Your task to perform on an android device: Add "apple airpods" to the cart on bestbuy.com, then select checkout. Image 0: 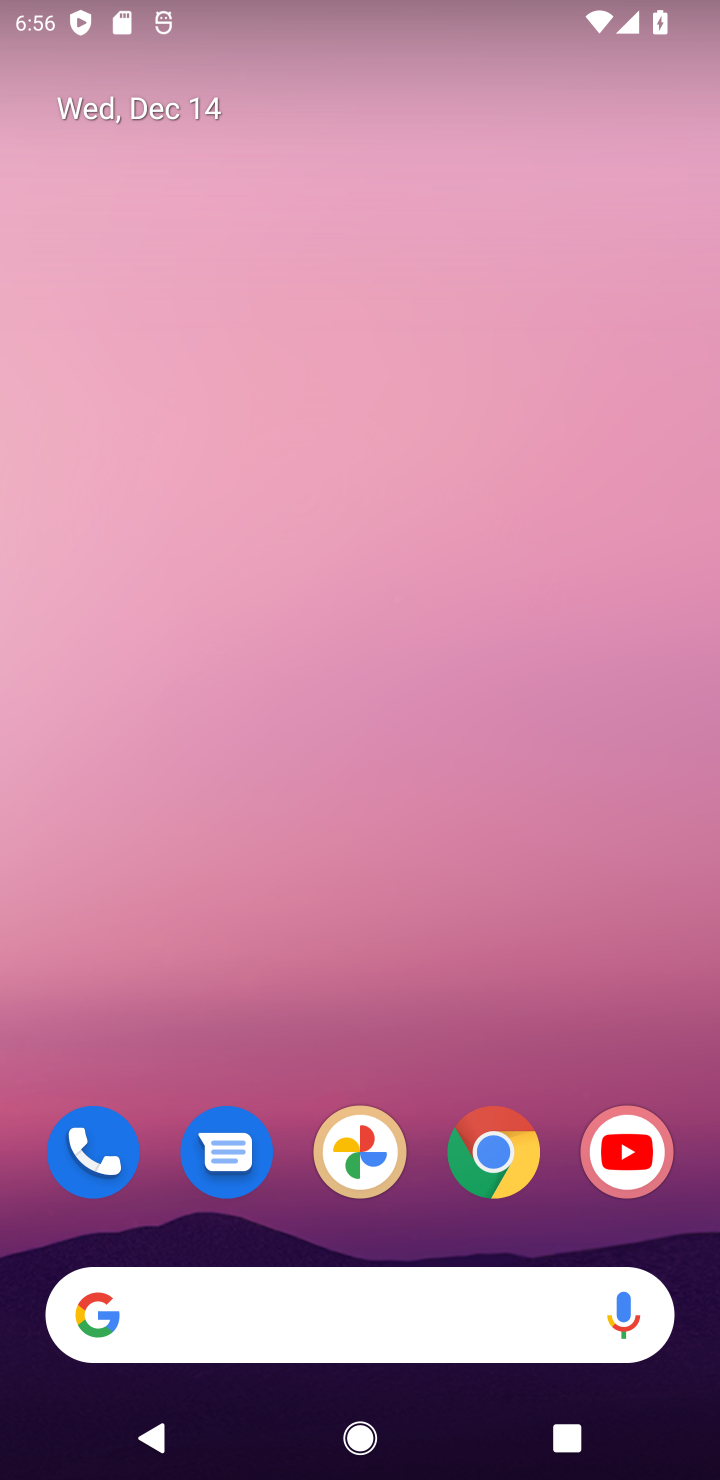
Step 0: click (503, 1157)
Your task to perform on an android device: Add "apple airpods" to the cart on bestbuy.com, then select checkout. Image 1: 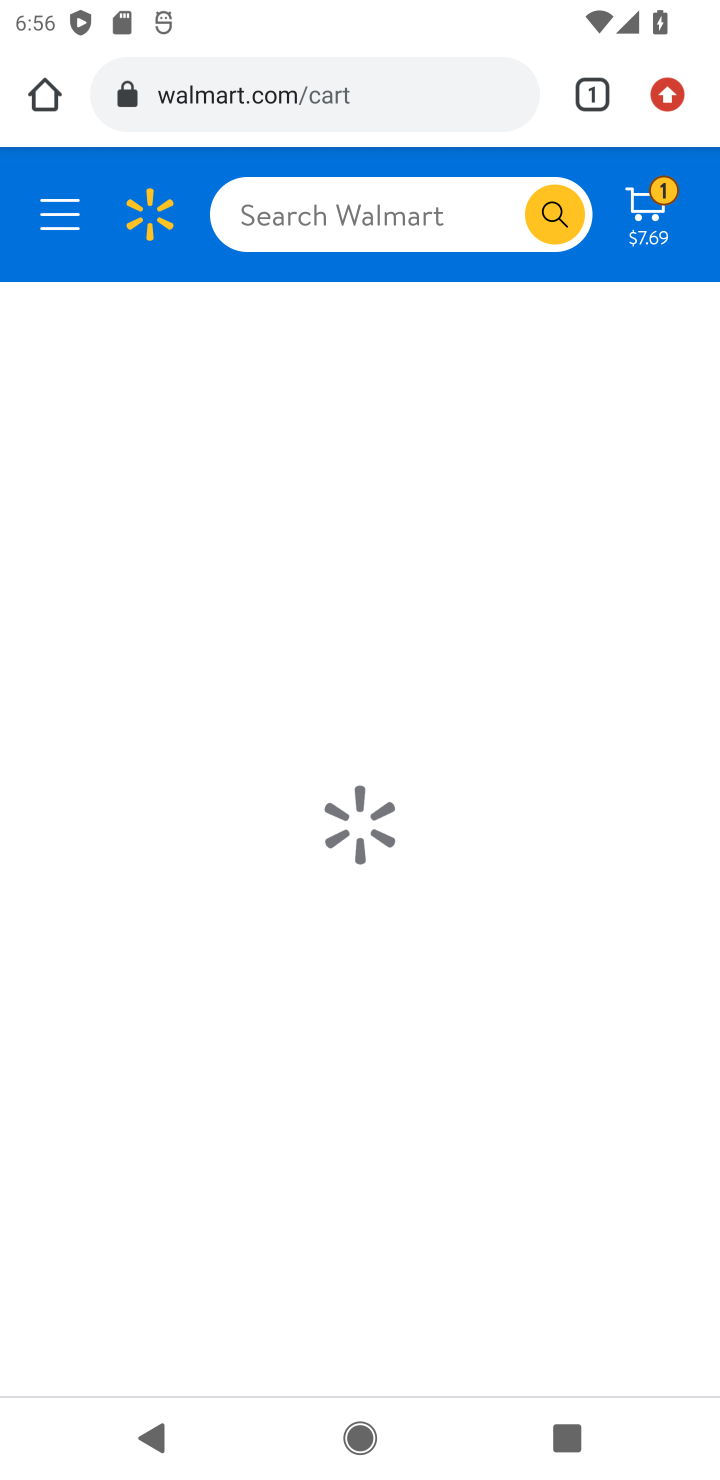
Step 1: click (273, 101)
Your task to perform on an android device: Add "apple airpods" to the cart on bestbuy.com, then select checkout. Image 2: 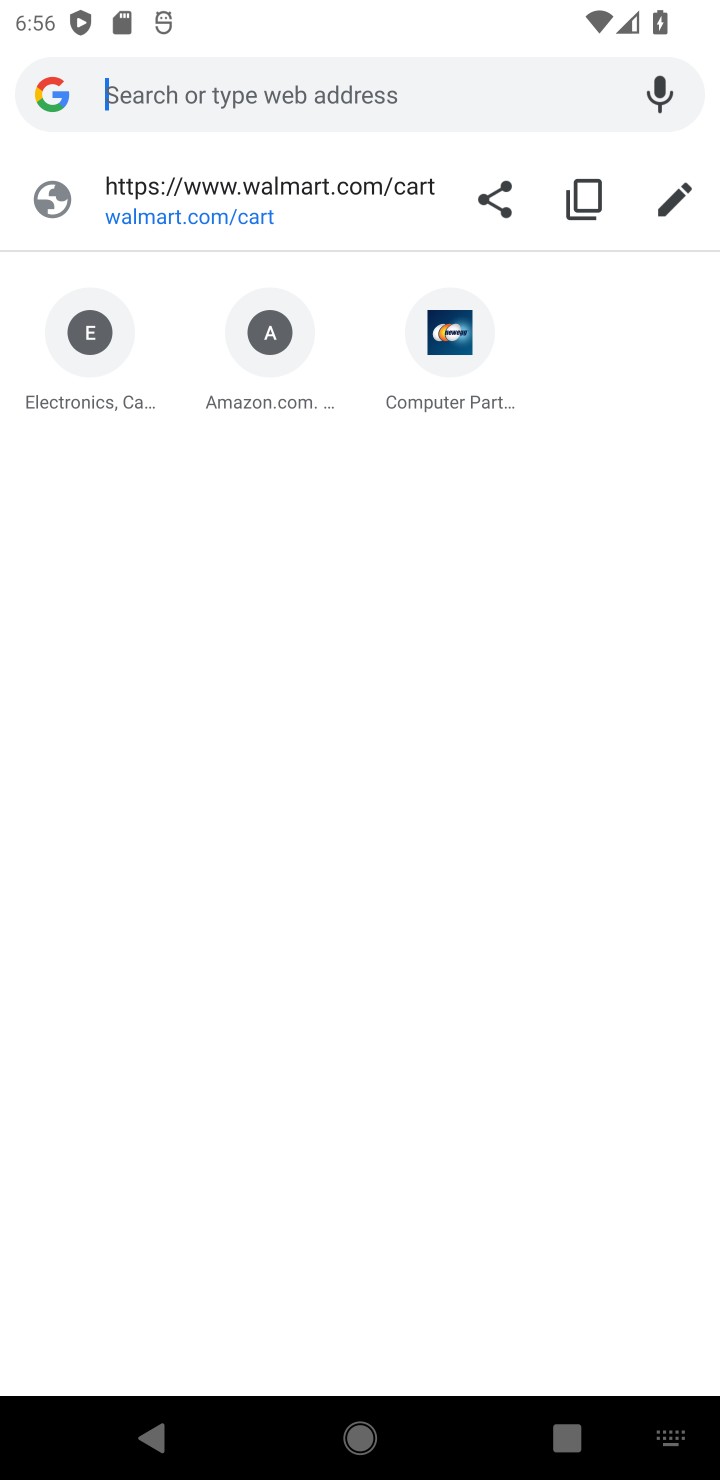
Step 2: type "bestbuy.com"
Your task to perform on an android device: Add "apple airpods" to the cart on bestbuy.com, then select checkout. Image 3: 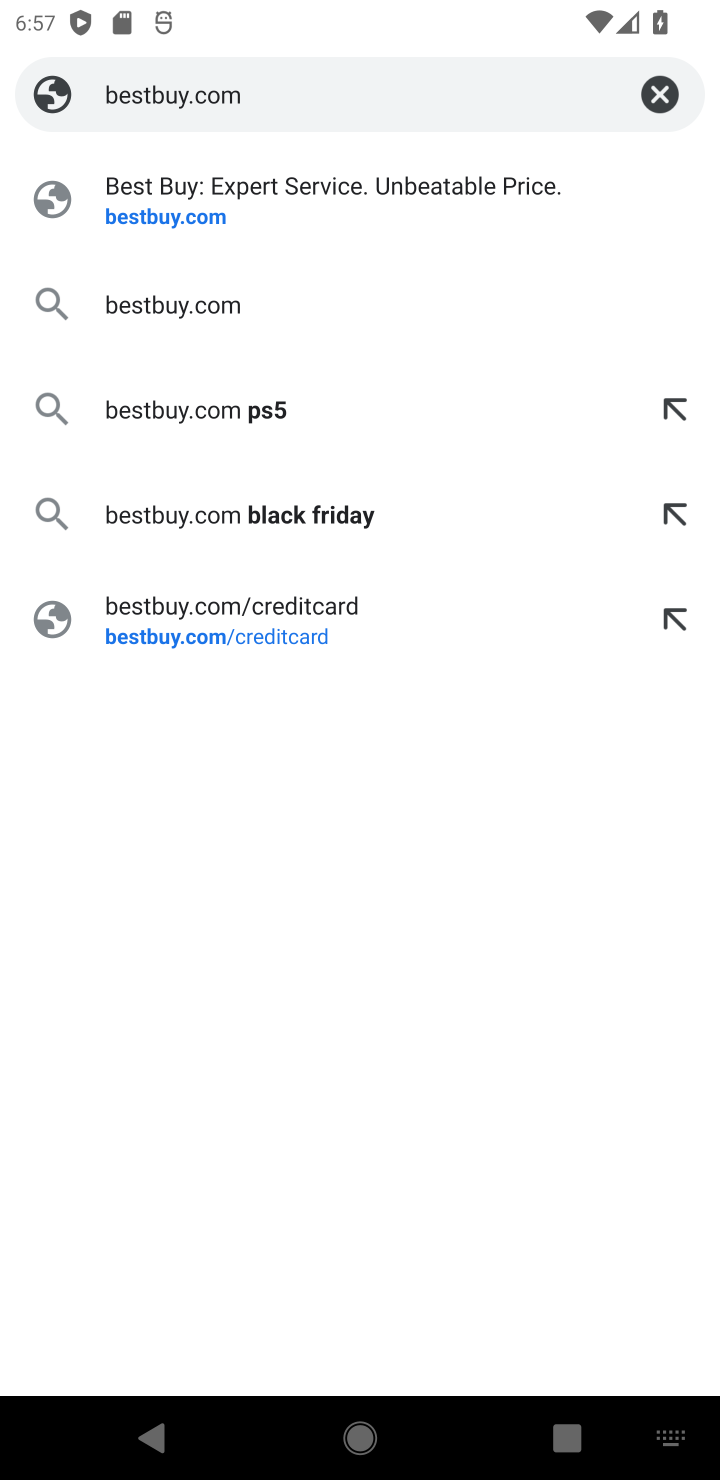
Step 3: click (199, 222)
Your task to perform on an android device: Add "apple airpods" to the cart on bestbuy.com, then select checkout. Image 4: 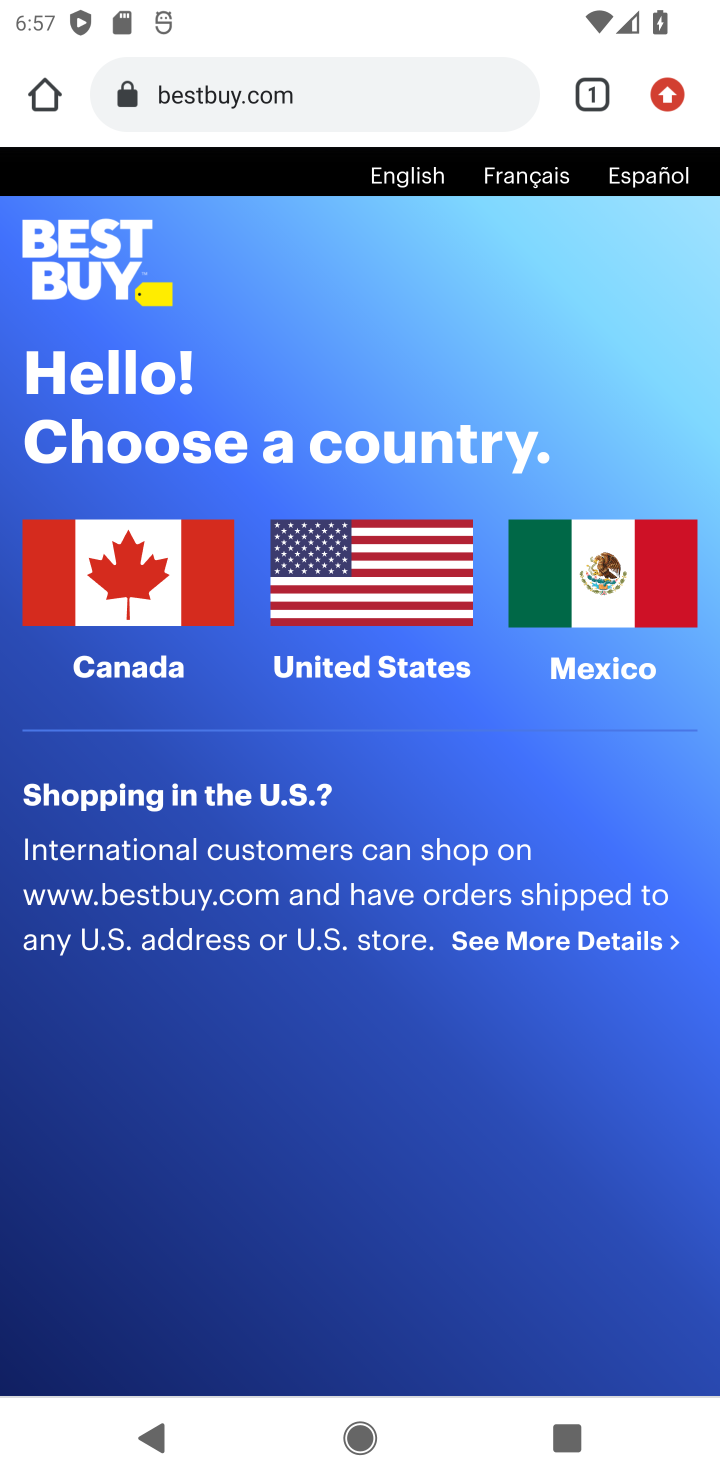
Step 4: click (375, 597)
Your task to perform on an android device: Add "apple airpods" to the cart on bestbuy.com, then select checkout. Image 5: 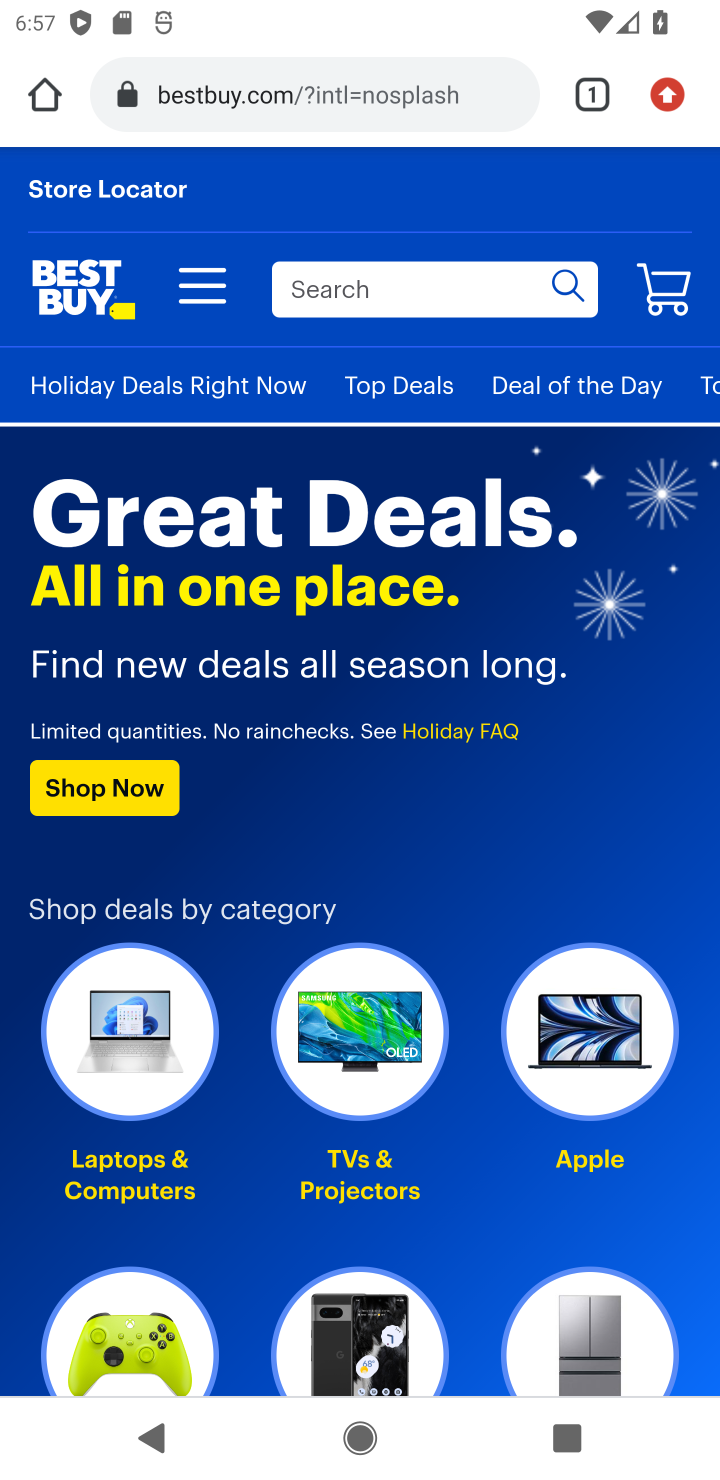
Step 5: click (346, 300)
Your task to perform on an android device: Add "apple airpods" to the cart on bestbuy.com, then select checkout. Image 6: 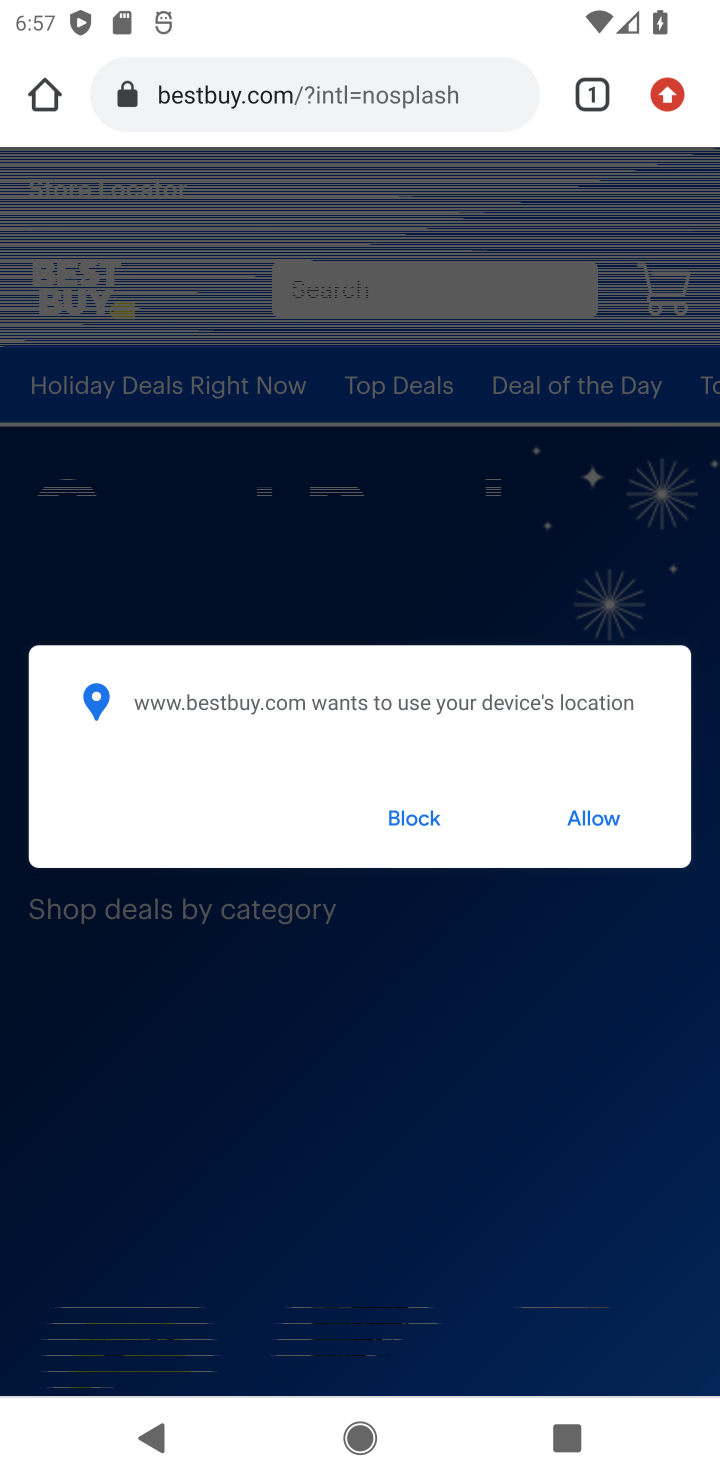
Step 6: click (411, 827)
Your task to perform on an android device: Add "apple airpods" to the cart on bestbuy.com, then select checkout. Image 7: 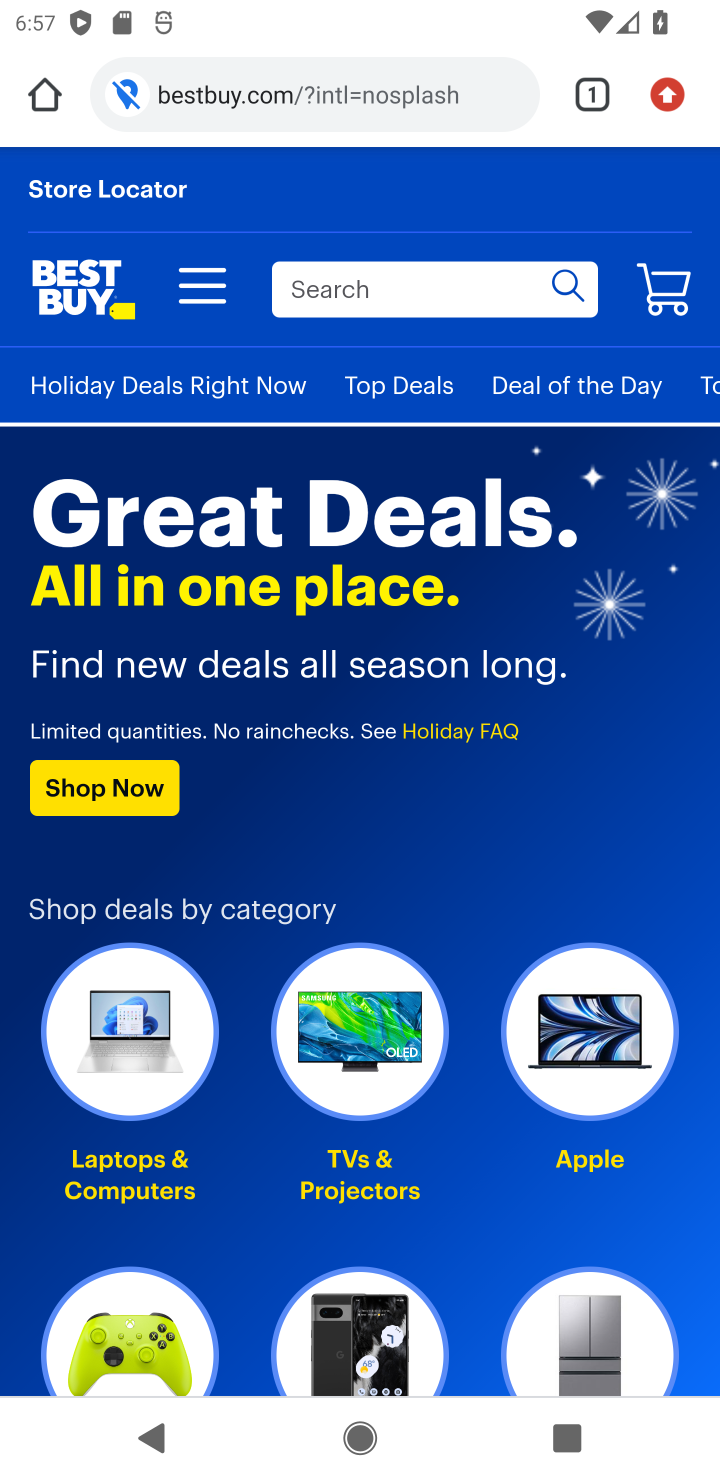
Step 7: click (316, 290)
Your task to perform on an android device: Add "apple airpods" to the cart on bestbuy.com, then select checkout. Image 8: 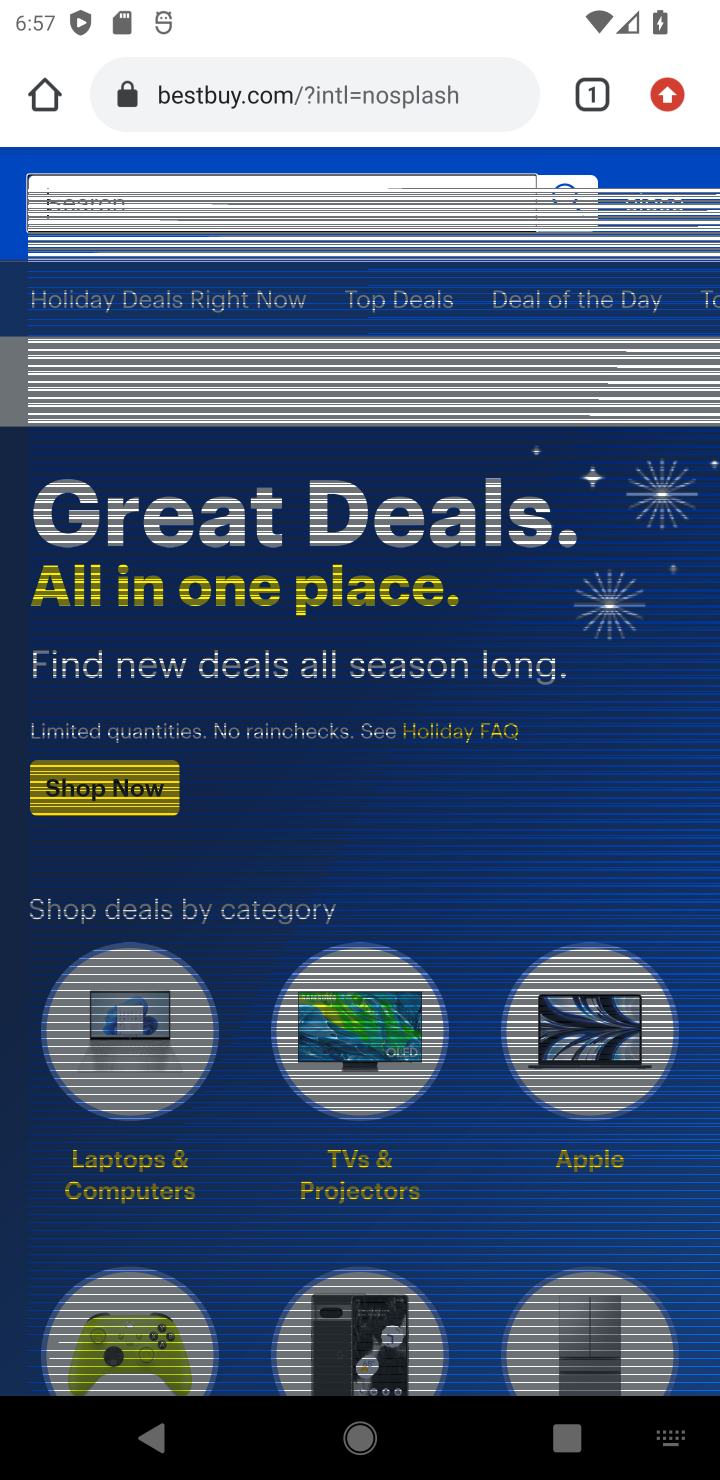
Step 8: type "apple airpods"
Your task to perform on an android device: Add "apple airpods" to the cart on bestbuy.com, then select checkout. Image 9: 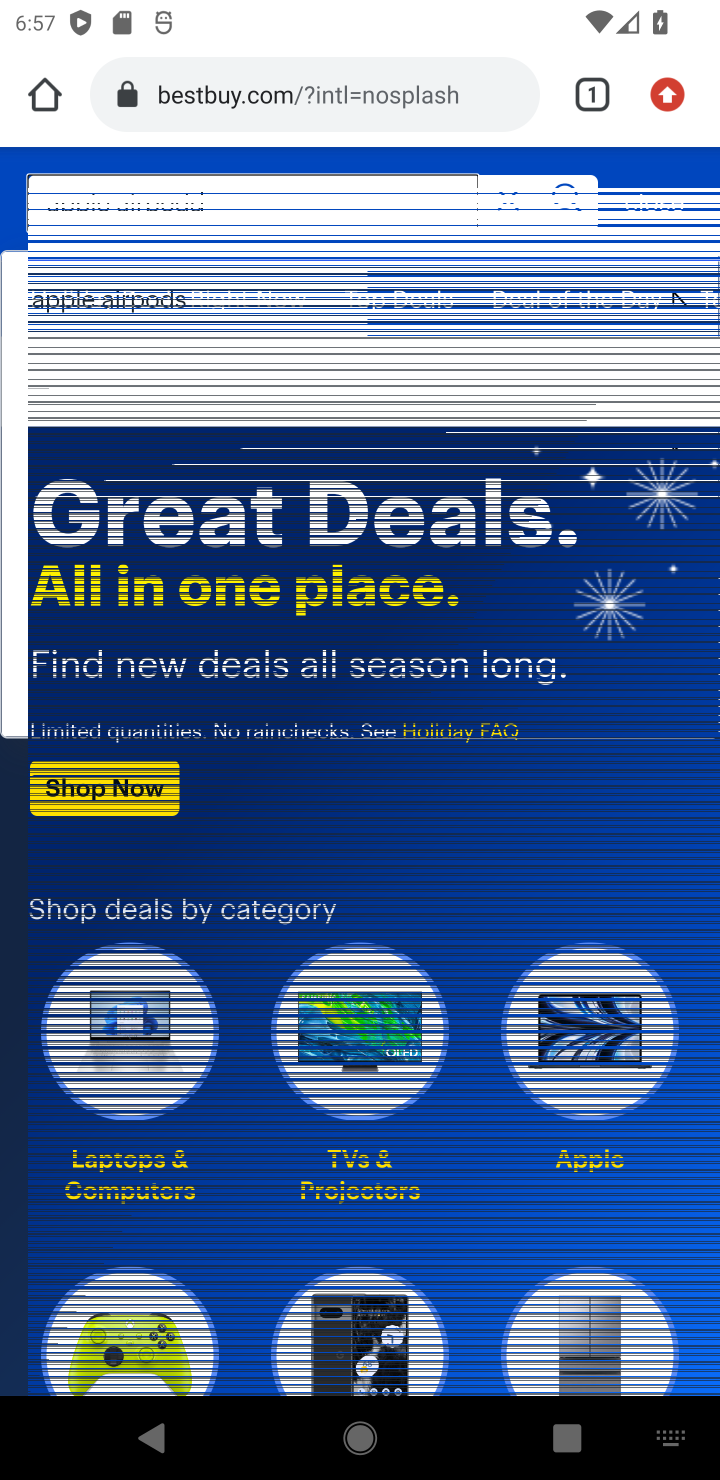
Step 9: click (103, 295)
Your task to perform on an android device: Add "apple airpods" to the cart on bestbuy.com, then select checkout. Image 10: 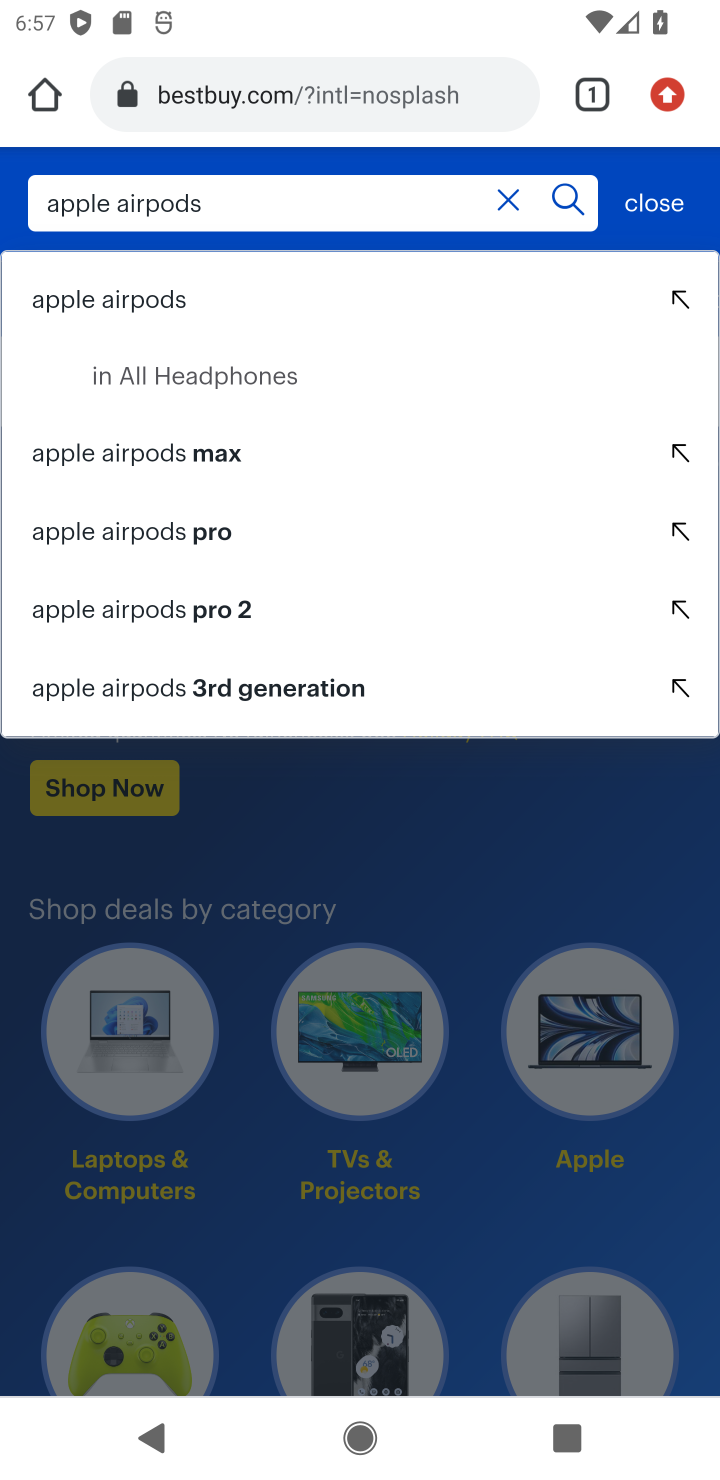
Step 10: click (109, 302)
Your task to perform on an android device: Add "apple airpods" to the cart on bestbuy.com, then select checkout. Image 11: 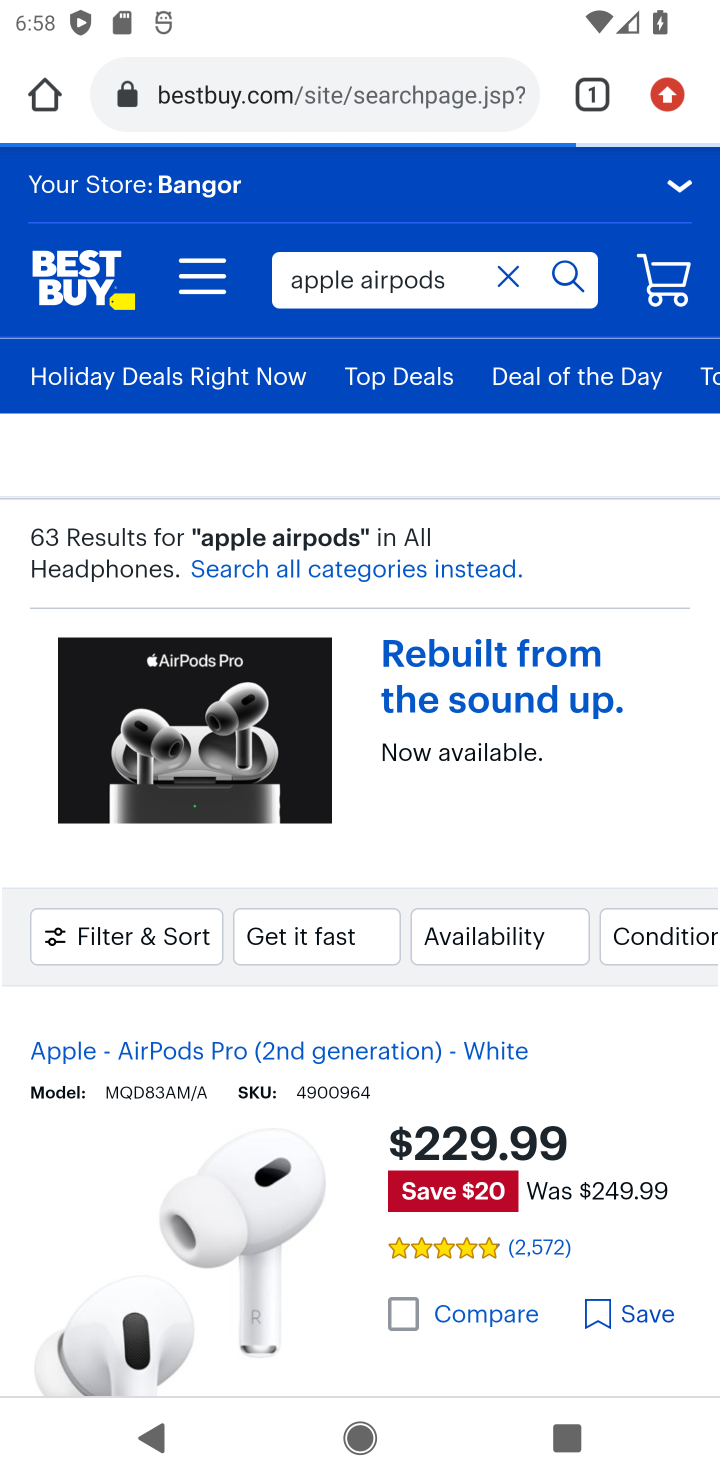
Step 11: drag from (263, 1103) to (263, 618)
Your task to perform on an android device: Add "apple airpods" to the cart on bestbuy.com, then select checkout. Image 12: 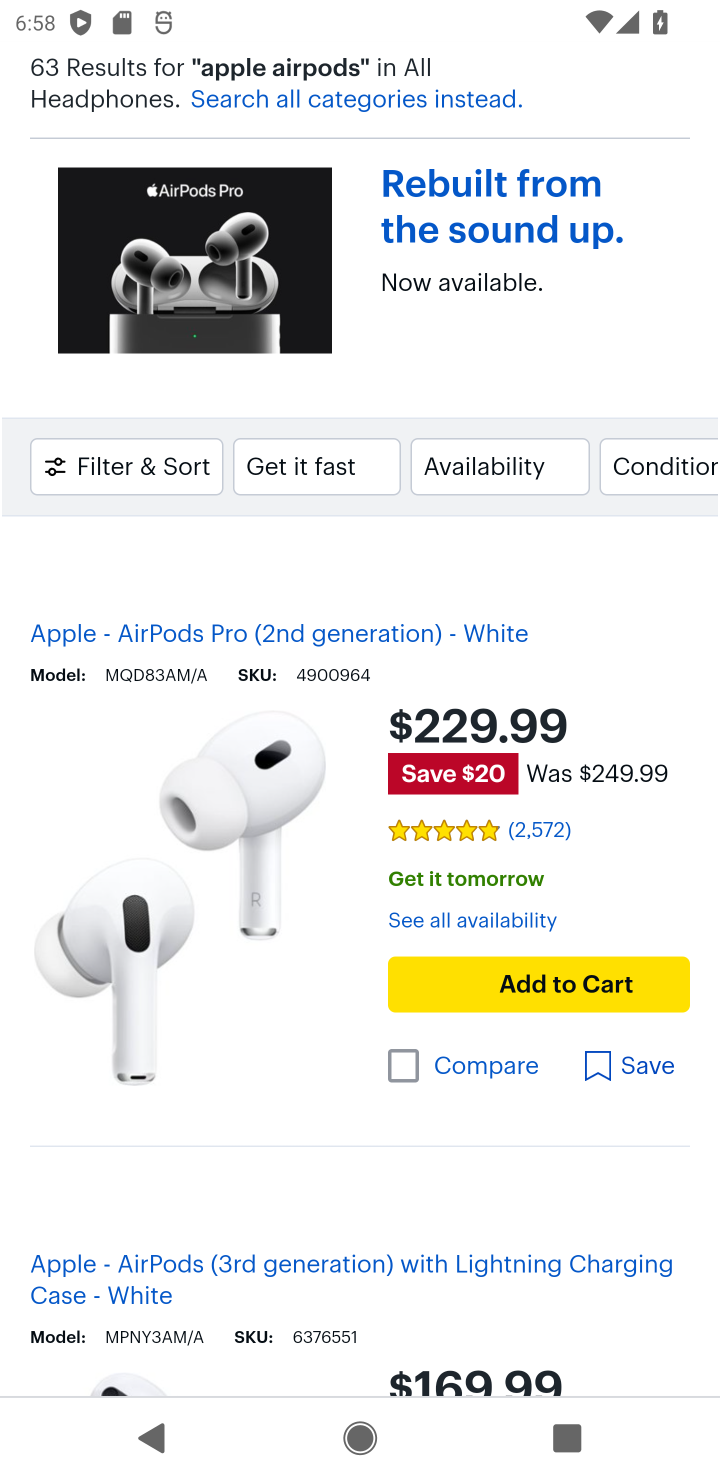
Step 12: click (237, 725)
Your task to perform on an android device: Add "apple airpods" to the cart on bestbuy.com, then select checkout. Image 13: 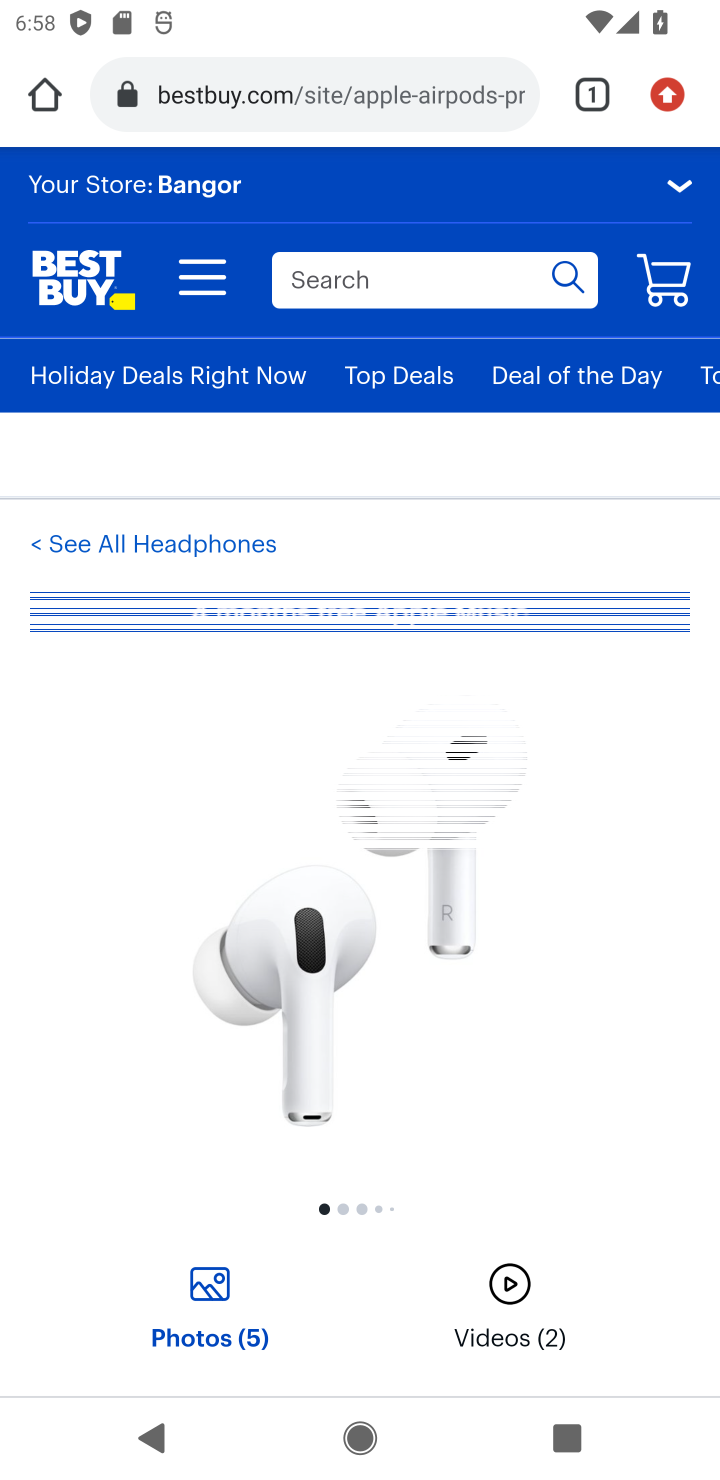
Step 13: drag from (373, 934) to (336, 285)
Your task to perform on an android device: Add "apple airpods" to the cart on bestbuy.com, then select checkout. Image 14: 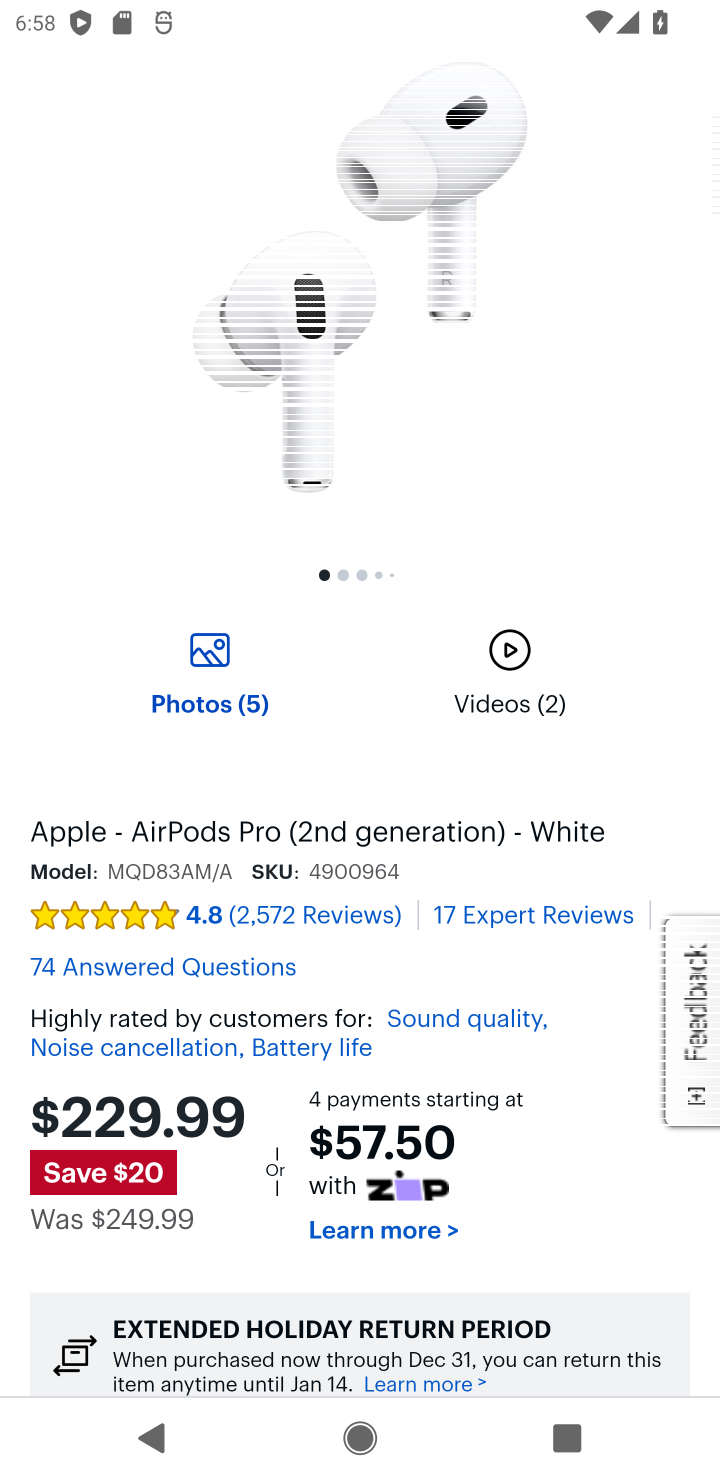
Step 14: drag from (297, 808) to (289, 399)
Your task to perform on an android device: Add "apple airpods" to the cart on bestbuy.com, then select checkout. Image 15: 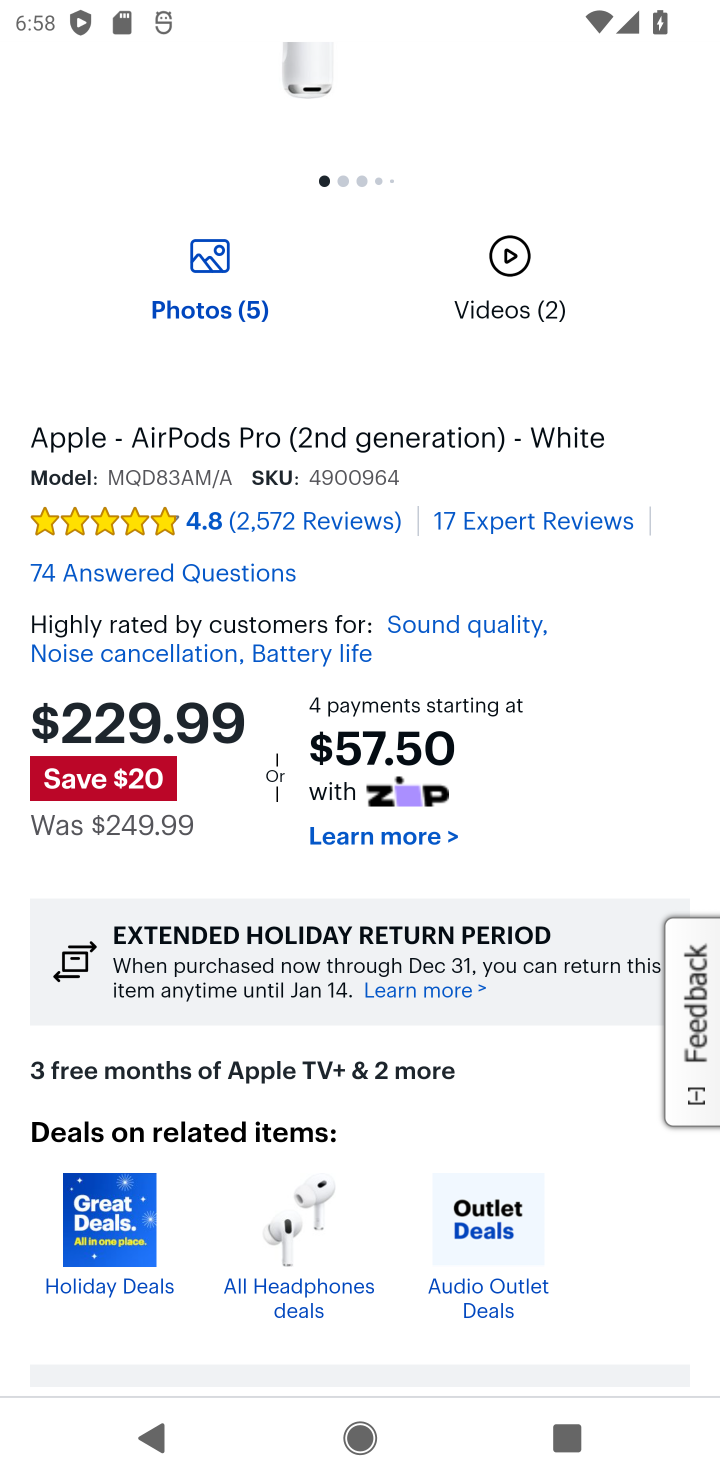
Step 15: drag from (396, 917) to (363, 327)
Your task to perform on an android device: Add "apple airpods" to the cart on bestbuy.com, then select checkout. Image 16: 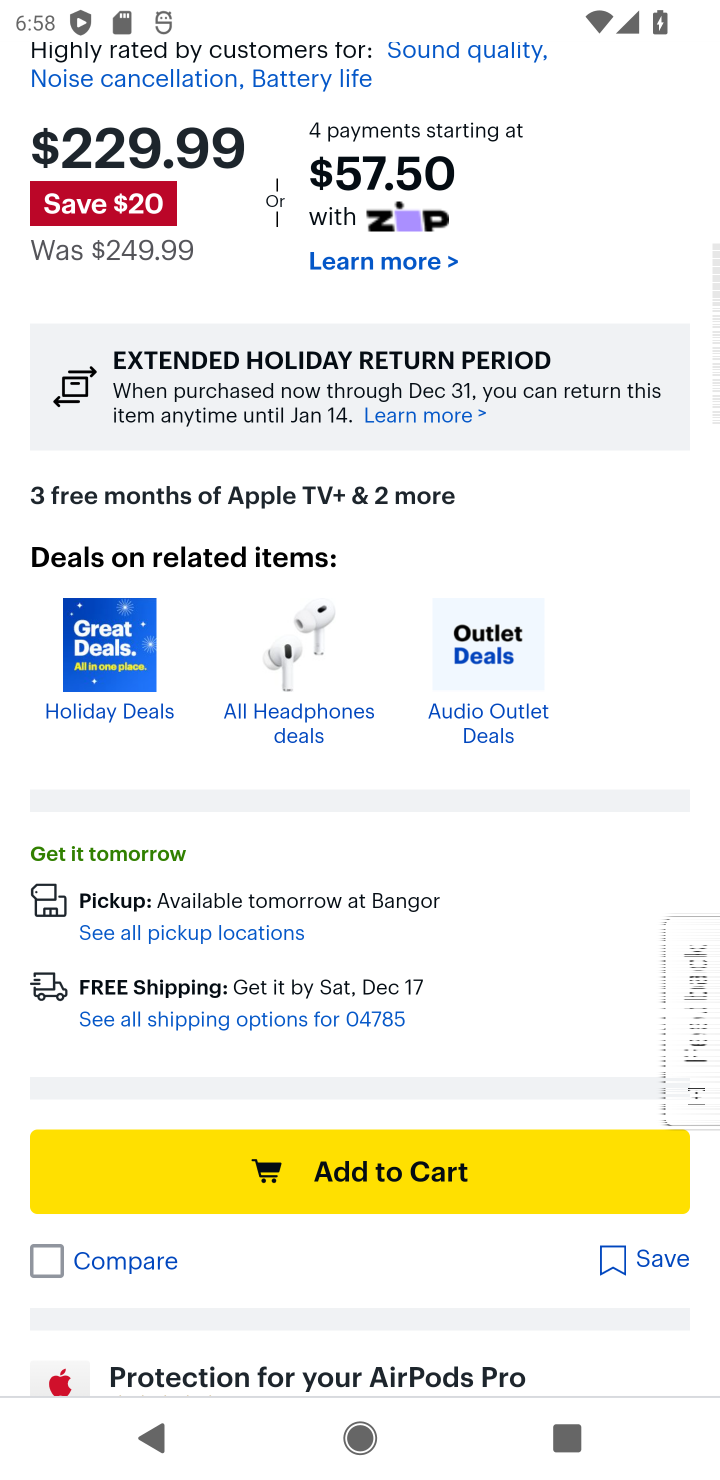
Step 16: click (357, 1175)
Your task to perform on an android device: Add "apple airpods" to the cart on bestbuy.com, then select checkout. Image 17: 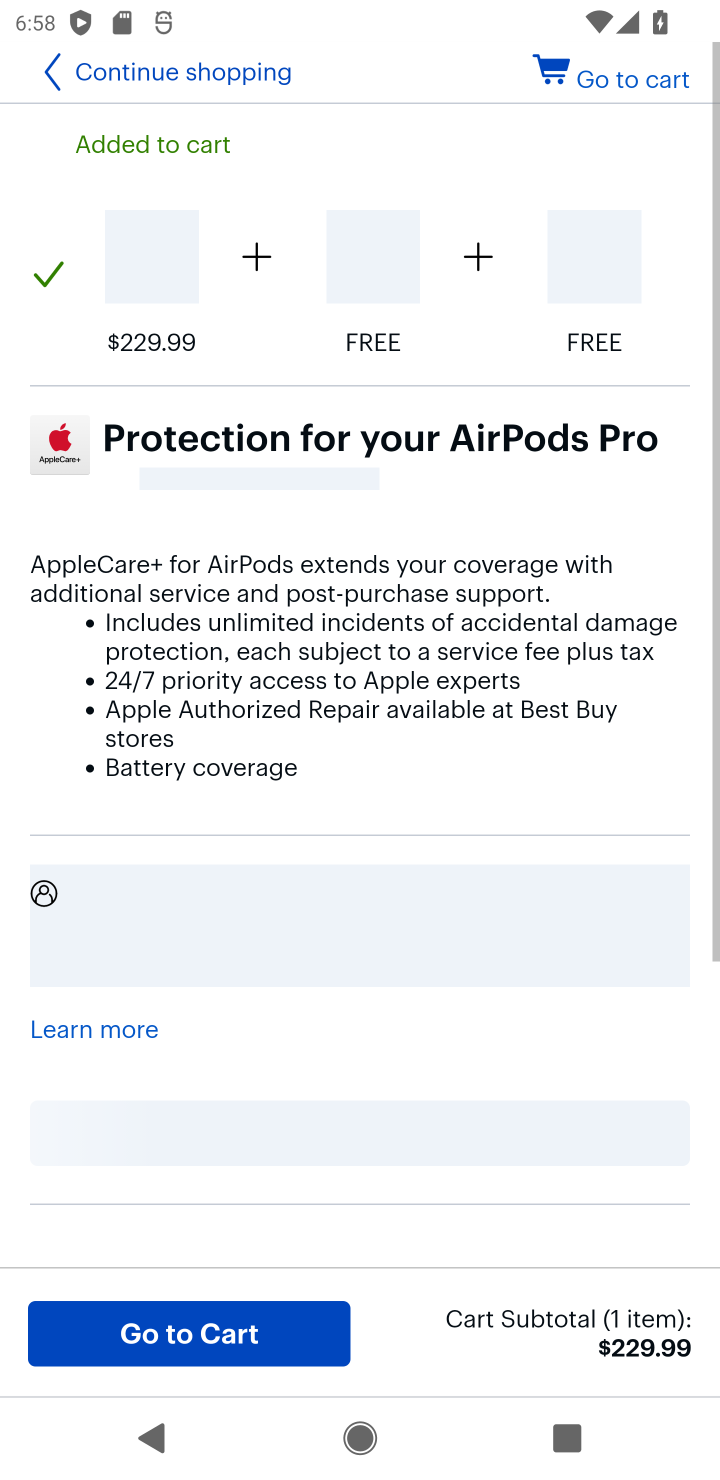
Step 17: click (631, 85)
Your task to perform on an android device: Add "apple airpods" to the cart on bestbuy.com, then select checkout. Image 18: 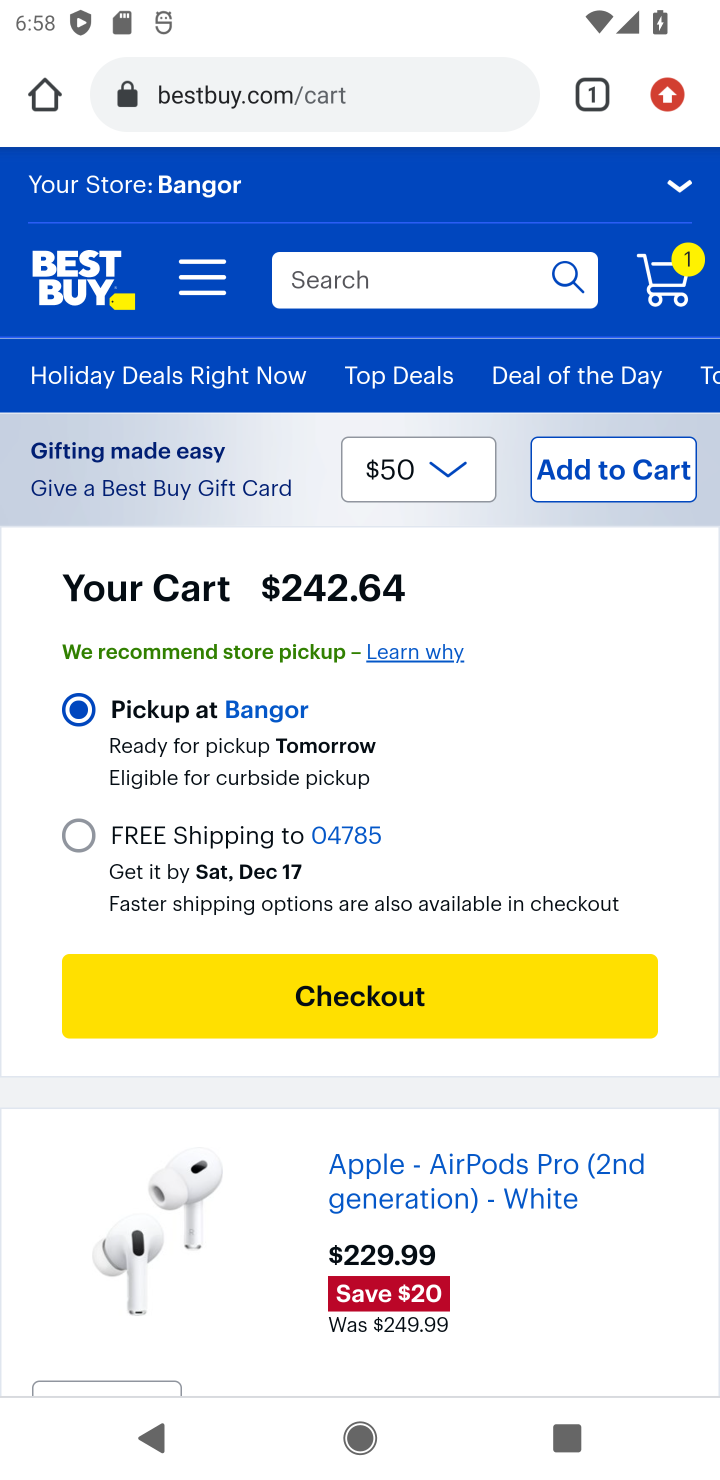
Step 18: click (302, 1016)
Your task to perform on an android device: Add "apple airpods" to the cart on bestbuy.com, then select checkout. Image 19: 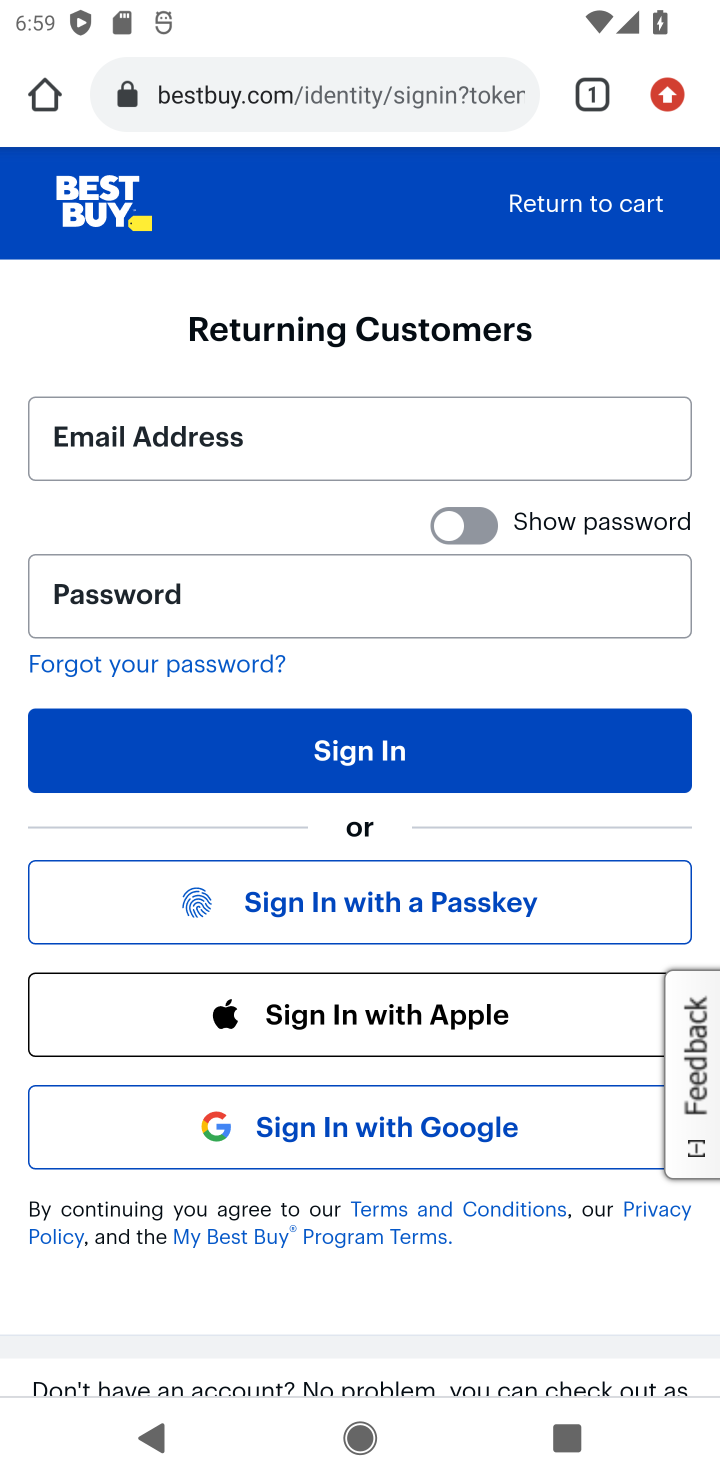
Step 19: press back button
Your task to perform on an android device: Add "apple airpods" to the cart on bestbuy.com, then select checkout. Image 20: 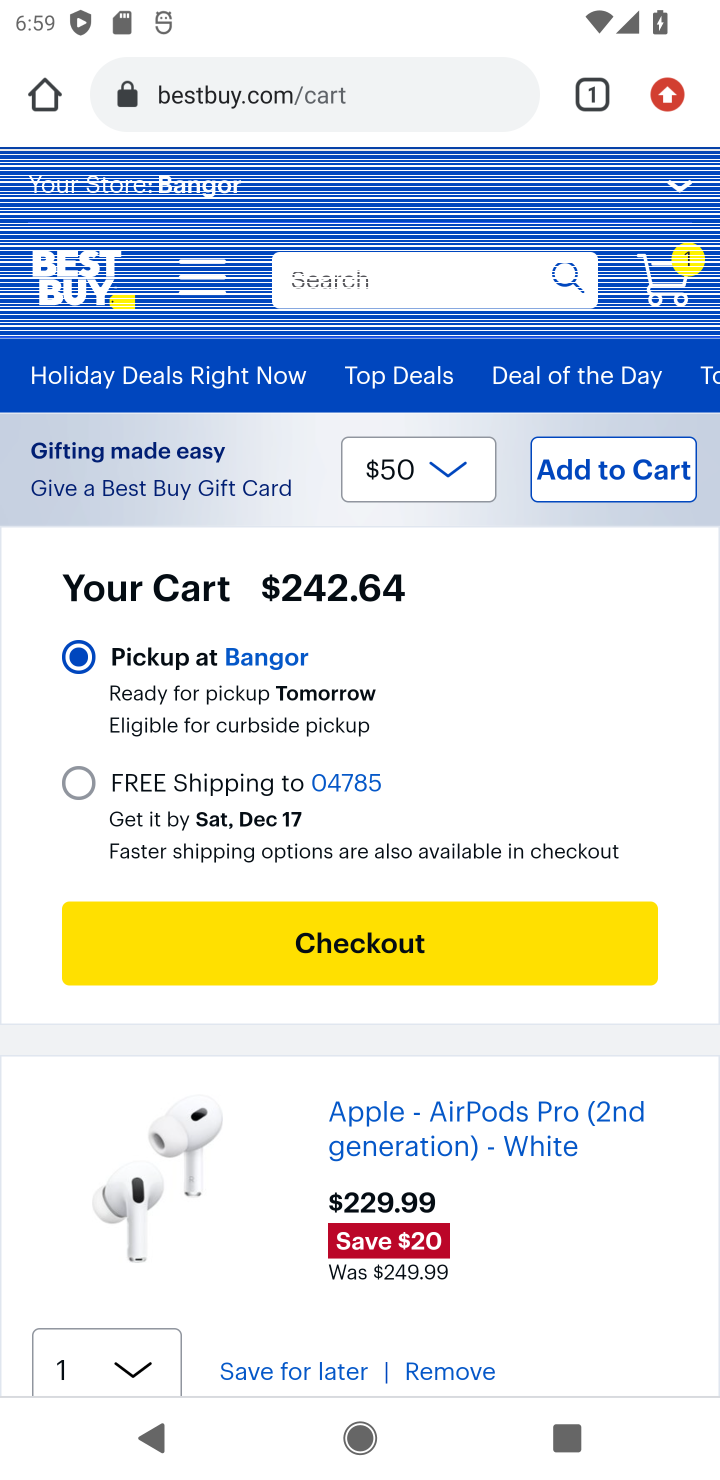
Step 20: click (343, 272)
Your task to perform on an android device: Add "apple airpods" to the cart on bestbuy.com, then select checkout. Image 21: 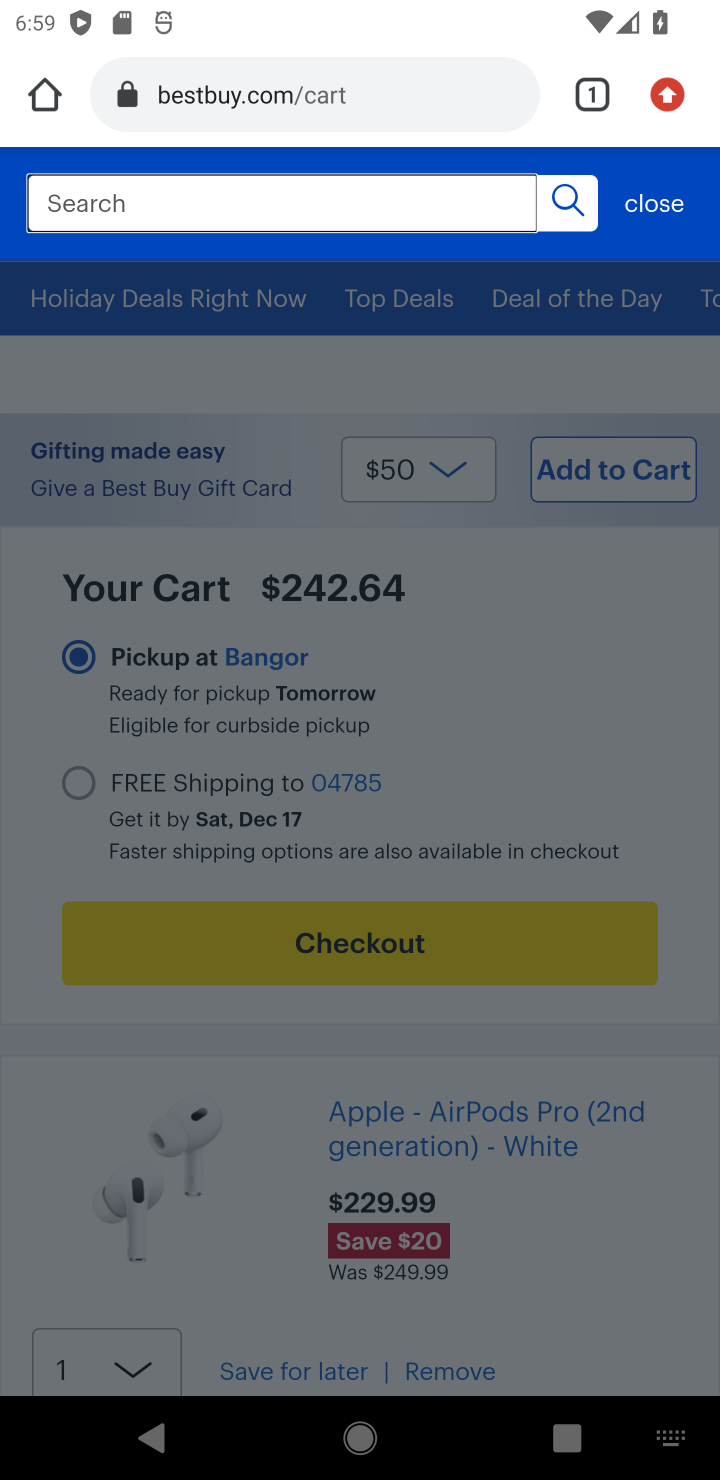
Step 21: type "apple airpods"
Your task to perform on an android device: Add "apple airpods" to the cart on bestbuy.com, then select checkout. Image 22: 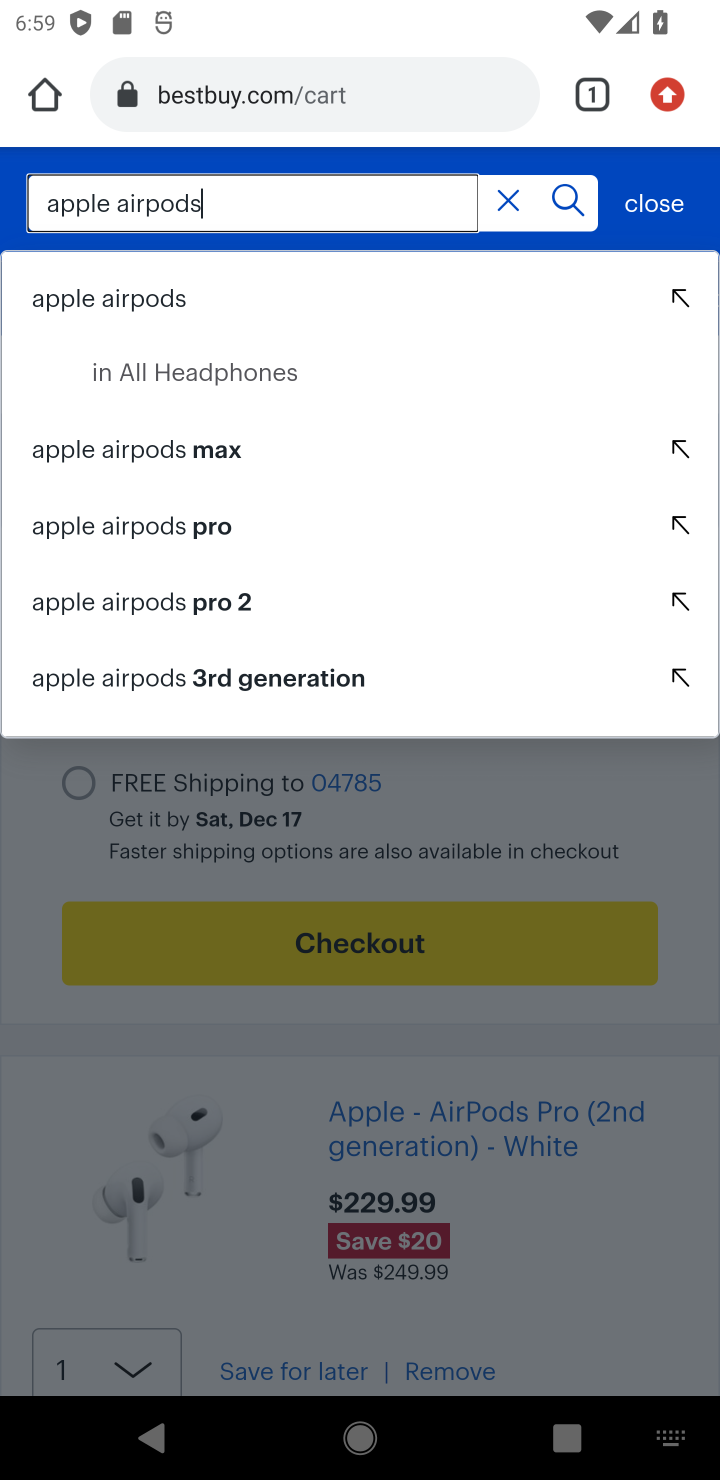
Step 22: click (132, 304)
Your task to perform on an android device: Add "apple airpods" to the cart on bestbuy.com, then select checkout. Image 23: 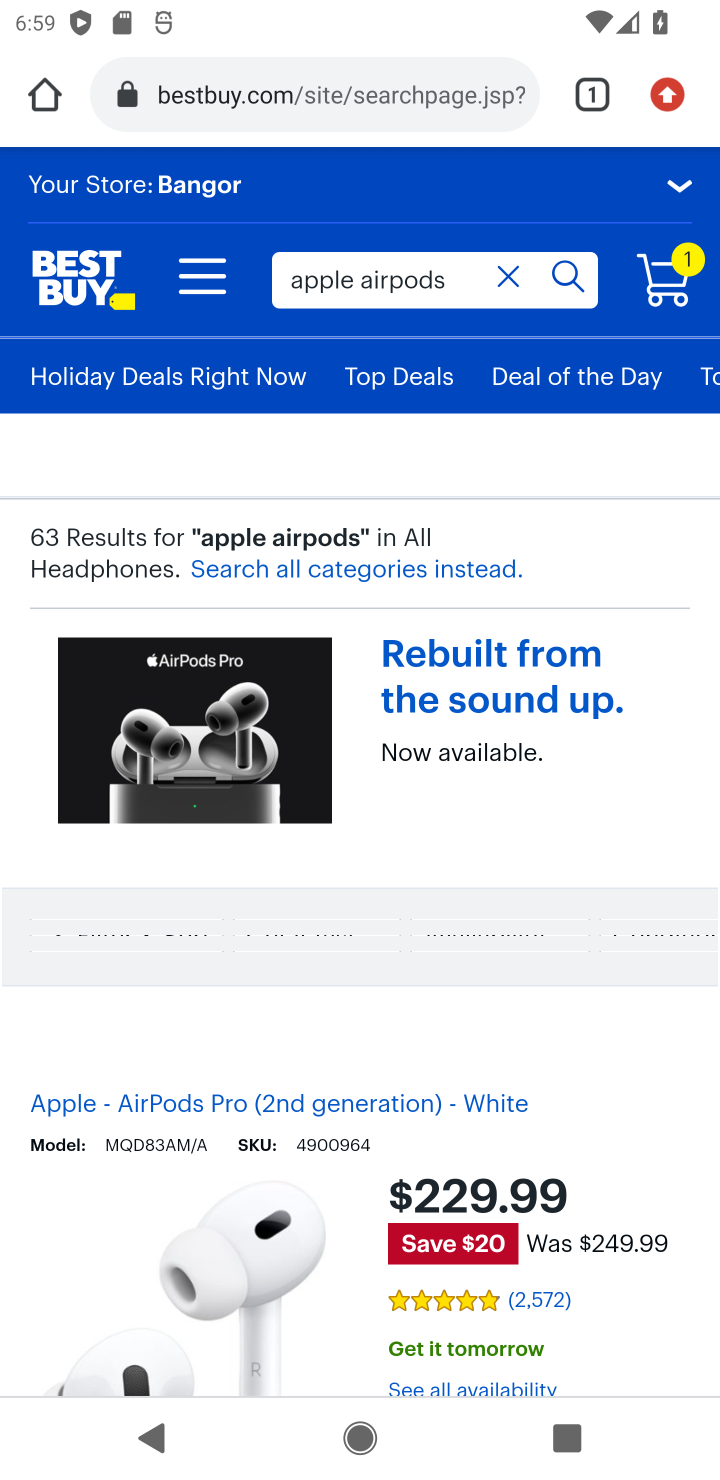
Step 23: click (220, 1281)
Your task to perform on an android device: Add "apple airpods" to the cart on bestbuy.com, then select checkout. Image 24: 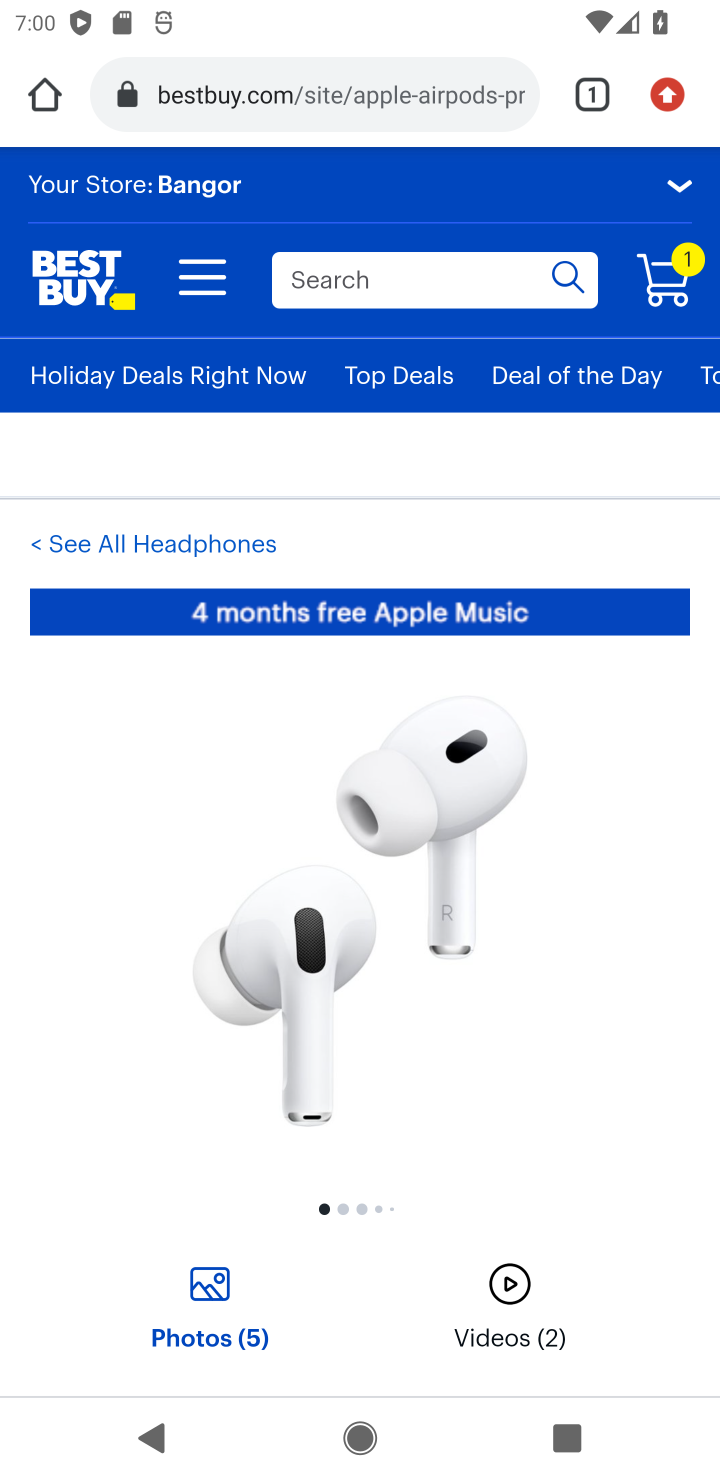
Step 24: drag from (350, 1178) to (288, 327)
Your task to perform on an android device: Add "apple airpods" to the cart on bestbuy.com, then select checkout. Image 25: 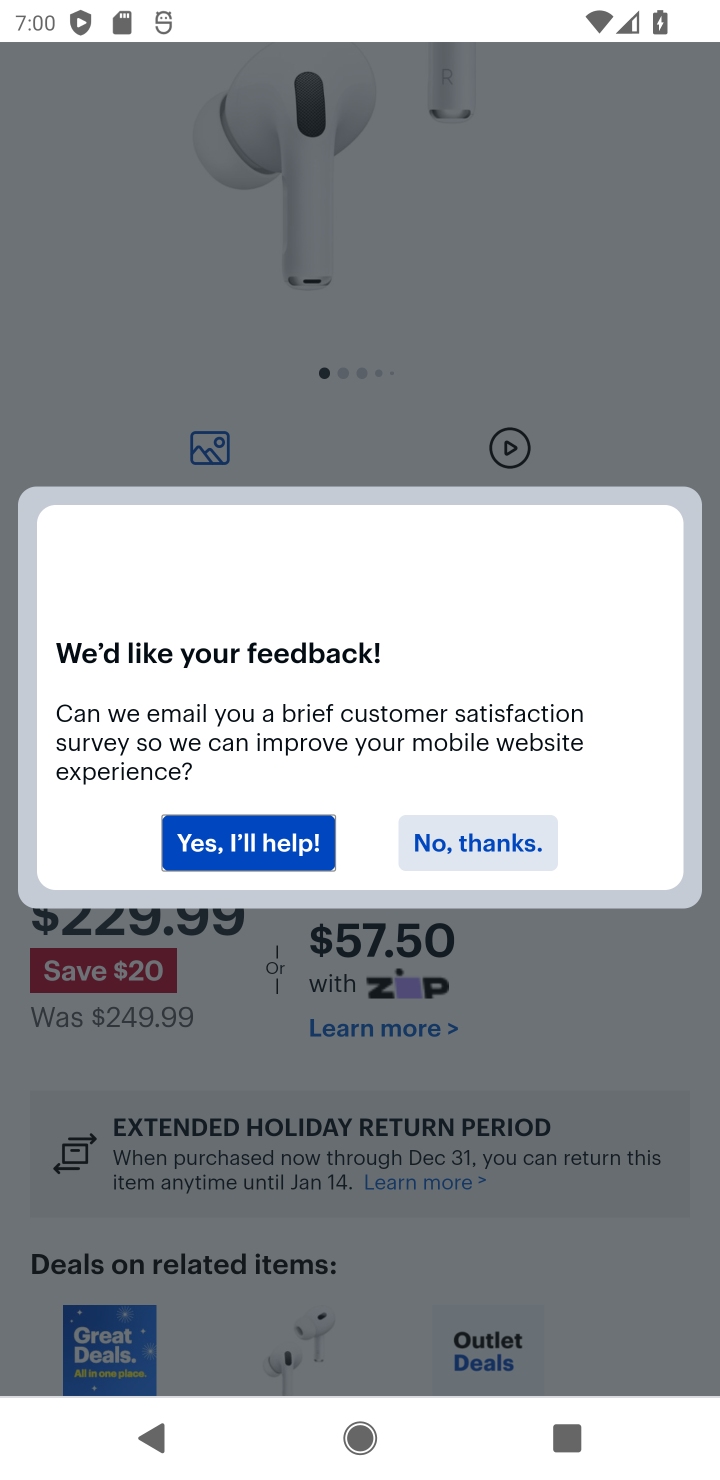
Step 25: drag from (279, 983) to (290, 437)
Your task to perform on an android device: Add "apple airpods" to the cart on bestbuy.com, then select checkout. Image 26: 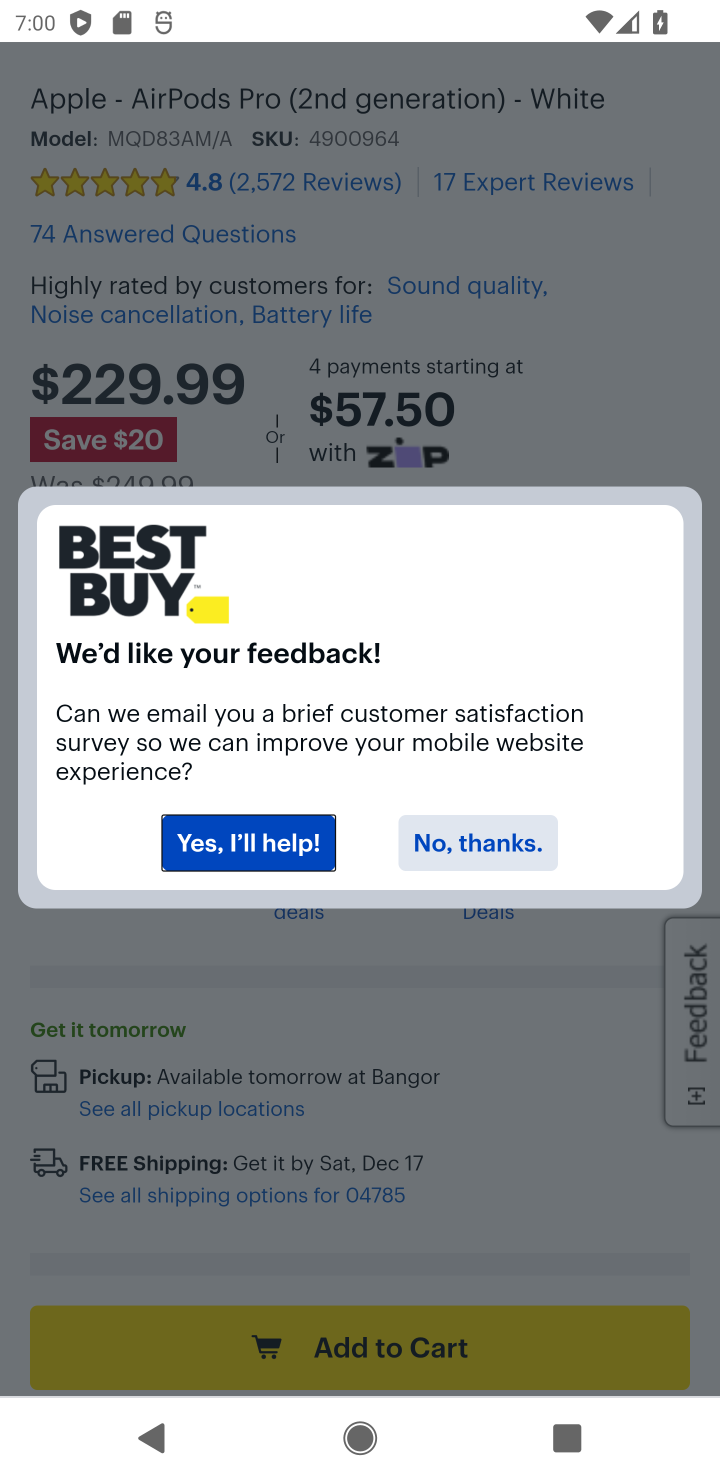
Step 26: click (447, 836)
Your task to perform on an android device: Add "apple airpods" to the cart on bestbuy.com, then select checkout. Image 27: 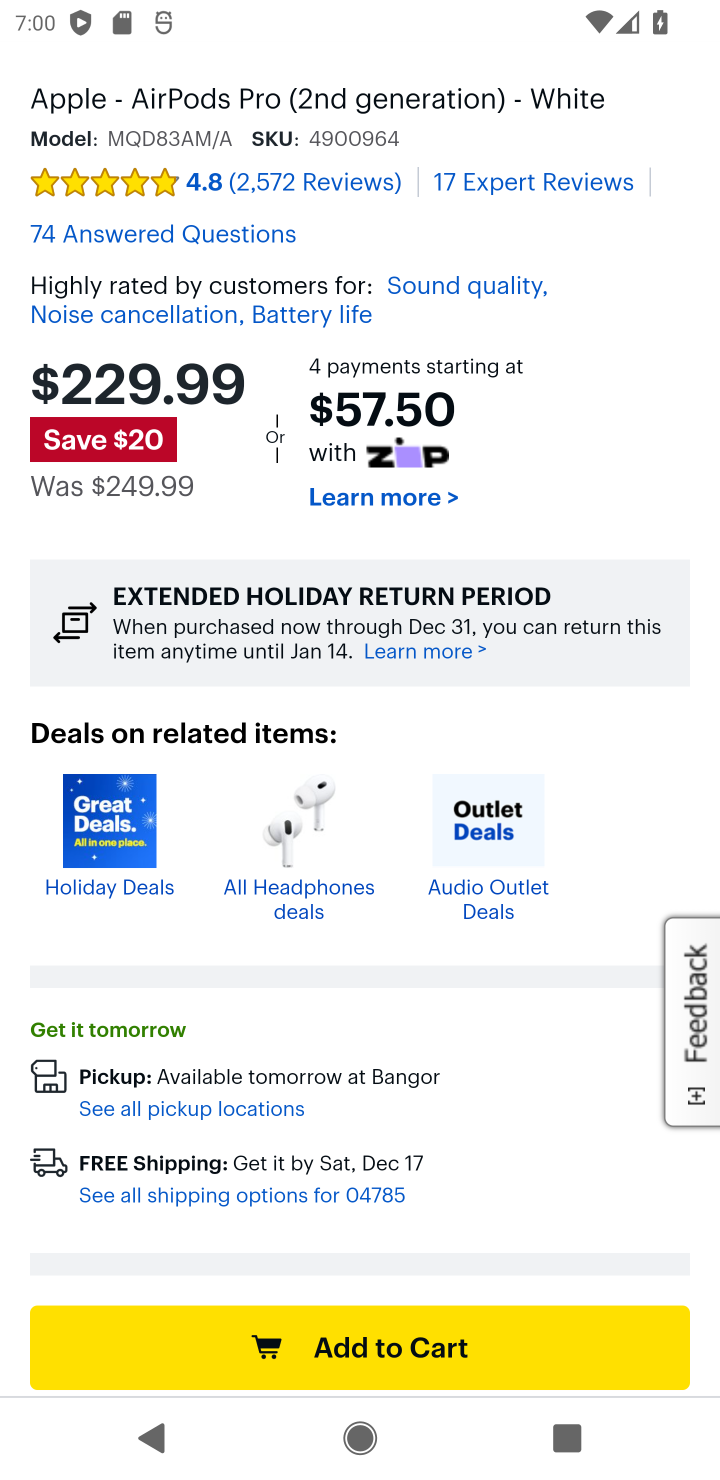
Step 27: click (328, 1331)
Your task to perform on an android device: Add "apple airpods" to the cart on bestbuy.com, then select checkout. Image 28: 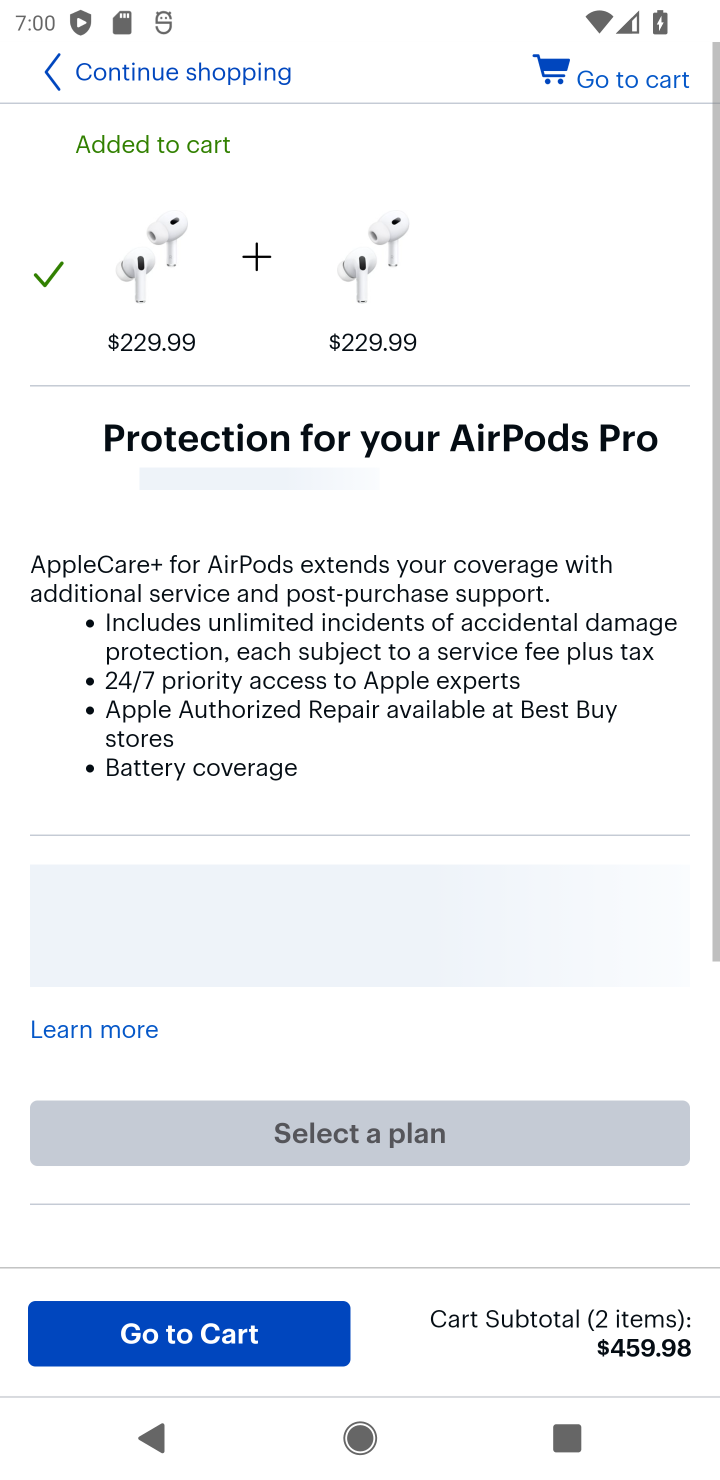
Step 28: click (597, 83)
Your task to perform on an android device: Add "apple airpods" to the cart on bestbuy.com, then select checkout. Image 29: 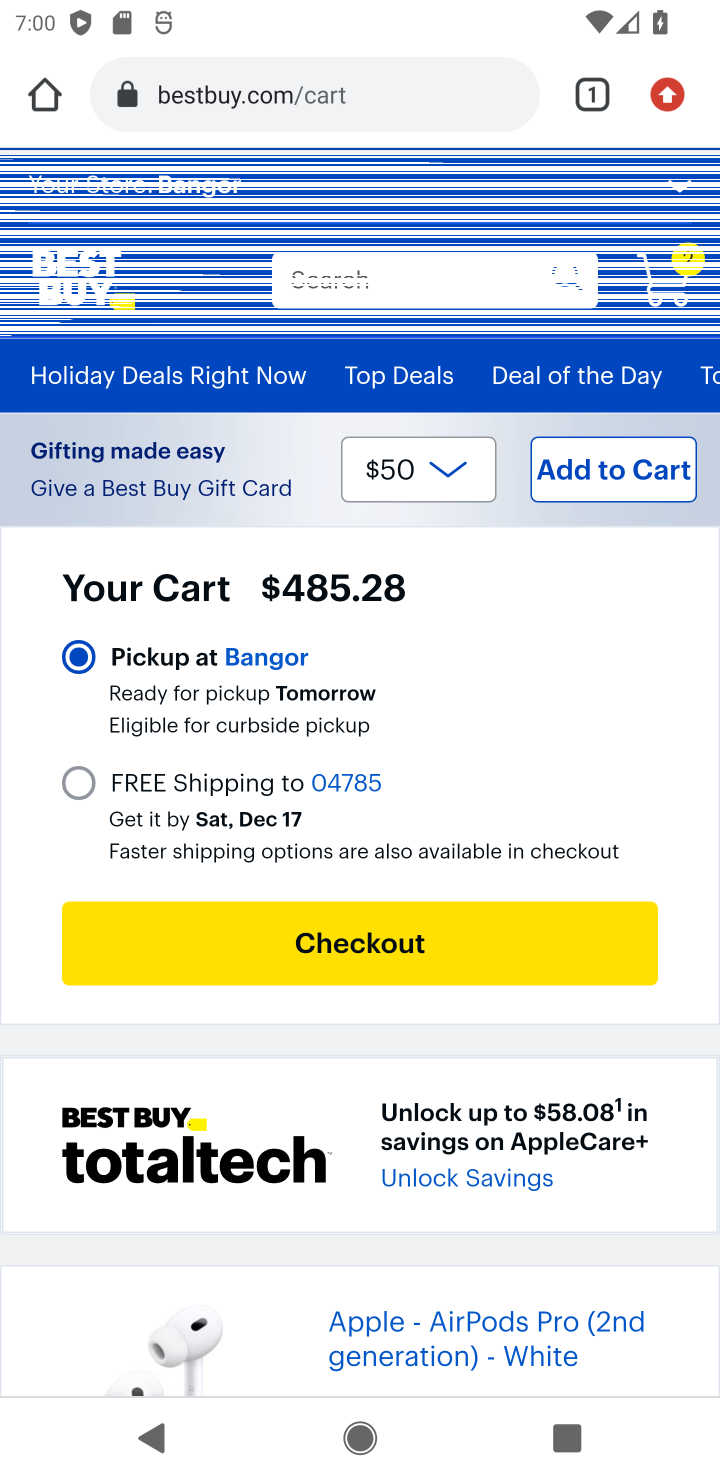
Step 29: click (320, 922)
Your task to perform on an android device: Add "apple airpods" to the cart on bestbuy.com, then select checkout. Image 30: 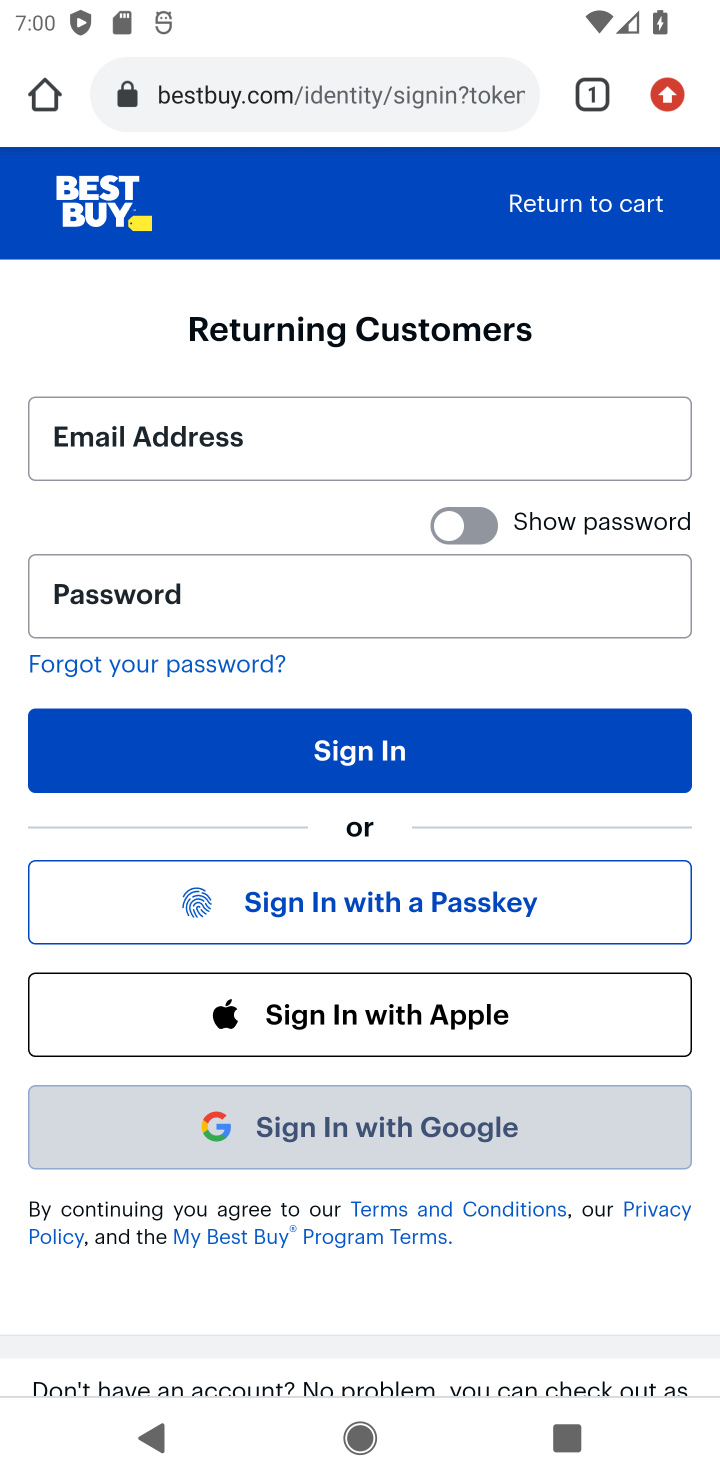
Step 30: task complete